Your task to perform on an android device: clear history in the chrome app Image 0: 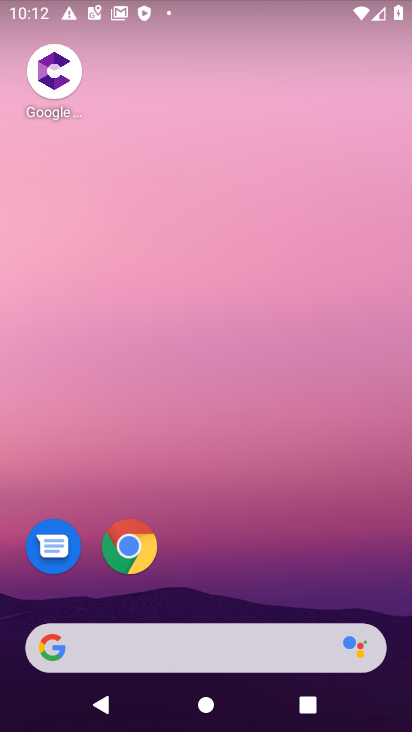
Step 0: click (137, 546)
Your task to perform on an android device: clear history in the chrome app Image 1: 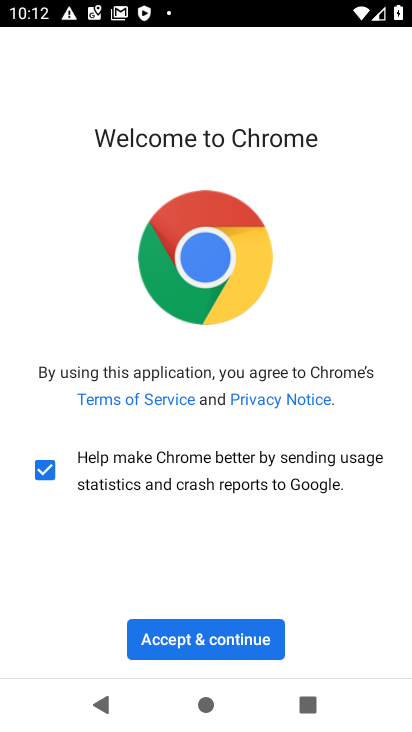
Step 1: click (211, 642)
Your task to perform on an android device: clear history in the chrome app Image 2: 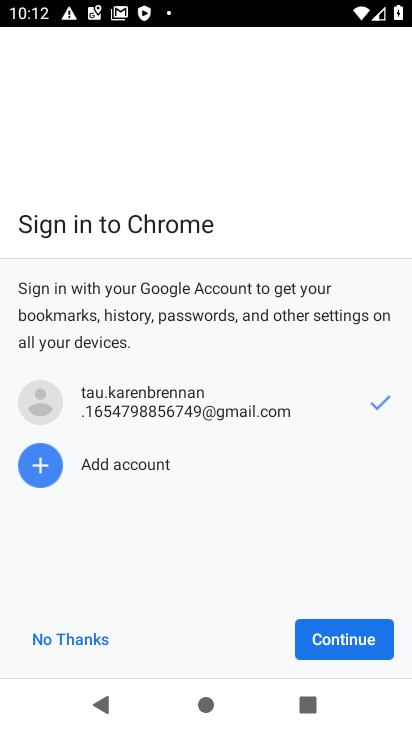
Step 2: click (317, 638)
Your task to perform on an android device: clear history in the chrome app Image 3: 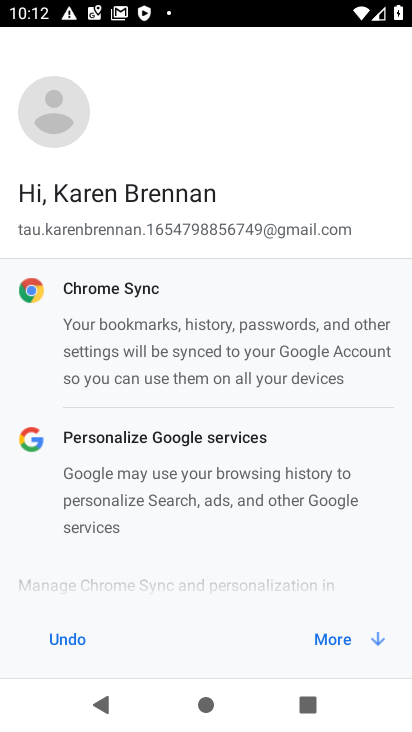
Step 3: click (317, 638)
Your task to perform on an android device: clear history in the chrome app Image 4: 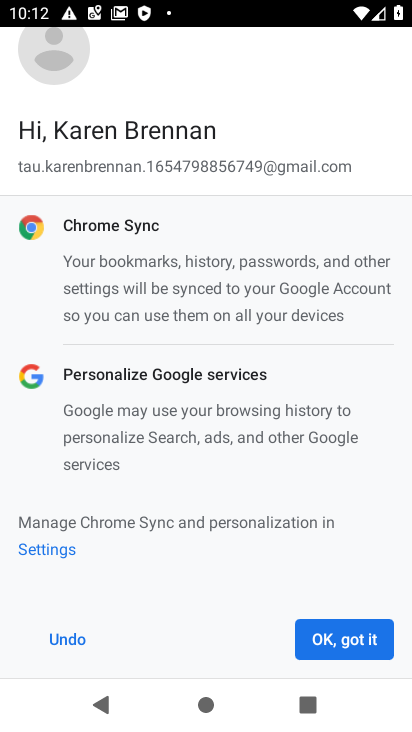
Step 4: click (359, 632)
Your task to perform on an android device: clear history in the chrome app Image 5: 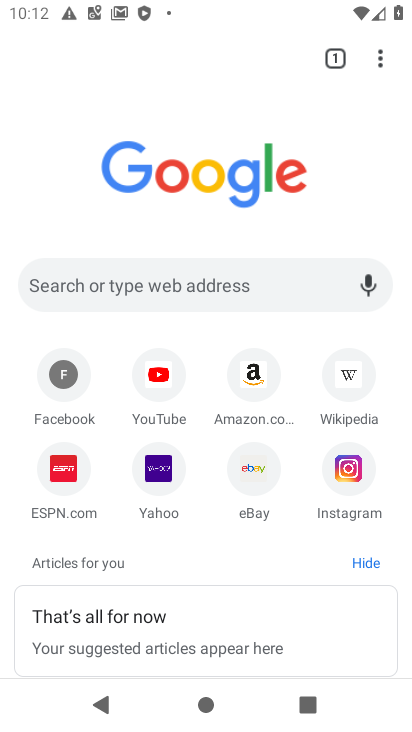
Step 5: drag from (378, 62) to (180, 338)
Your task to perform on an android device: clear history in the chrome app Image 6: 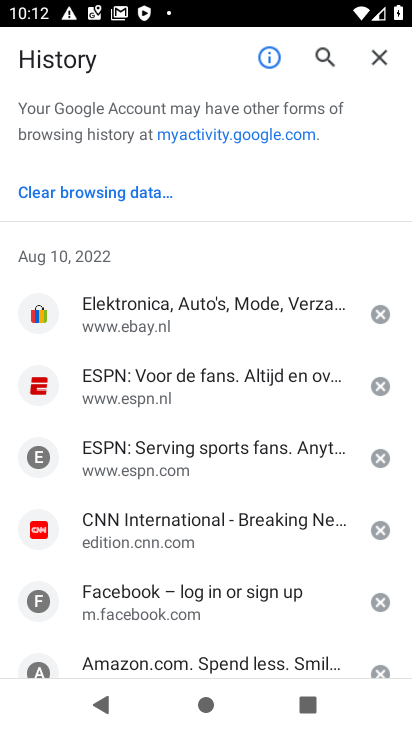
Step 6: click (92, 194)
Your task to perform on an android device: clear history in the chrome app Image 7: 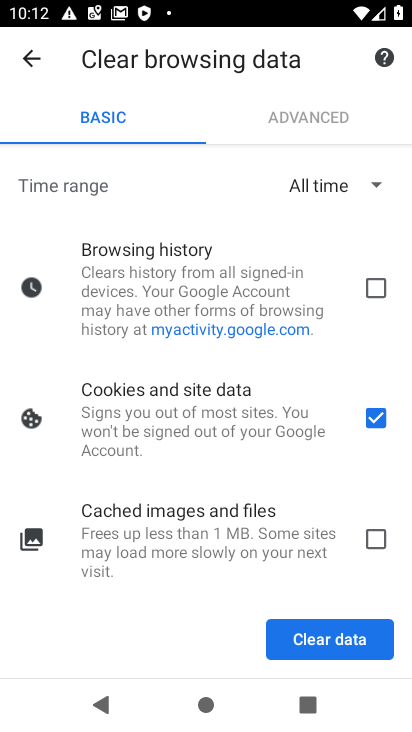
Step 7: click (380, 404)
Your task to perform on an android device: clear history in the chrome app Image 8: 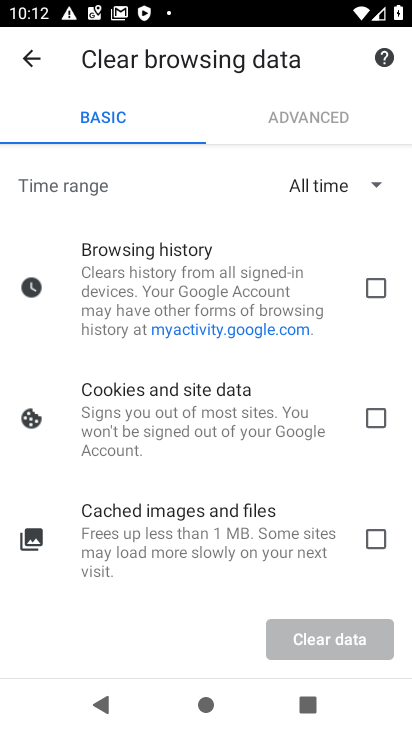
Step 8: click (374, 278)
Your task to perform on an android device: clear history in the chrome app Image 9: 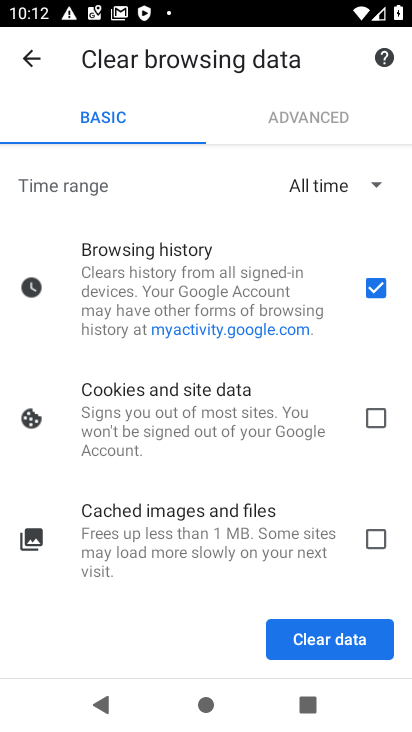
Step 9: click (325, 647)
Your task to perform on an android device: clear history in the chrome app Image 10: 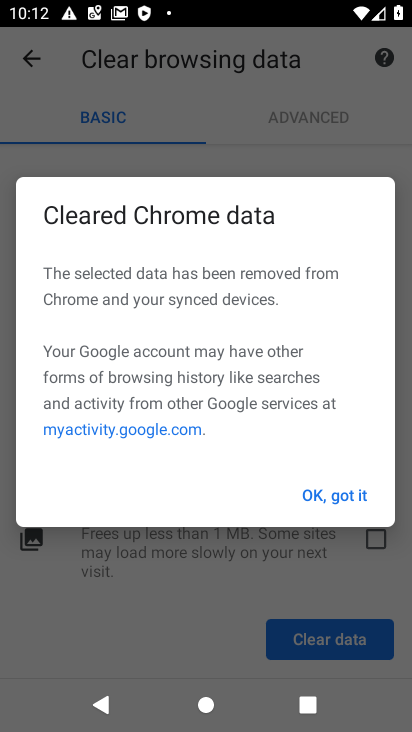
Step 10: click (330, 489)
Your task to perform on an android device: clear history in the chrome app Image 11: 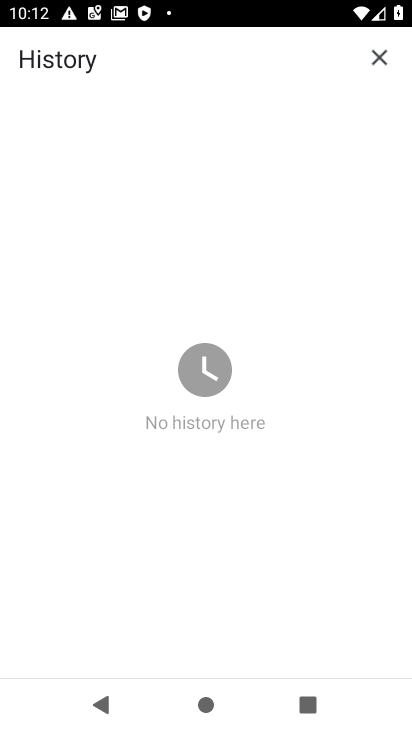
Step 11: task complete